Your task to perform on an android device: Go to Google maps Image 0: 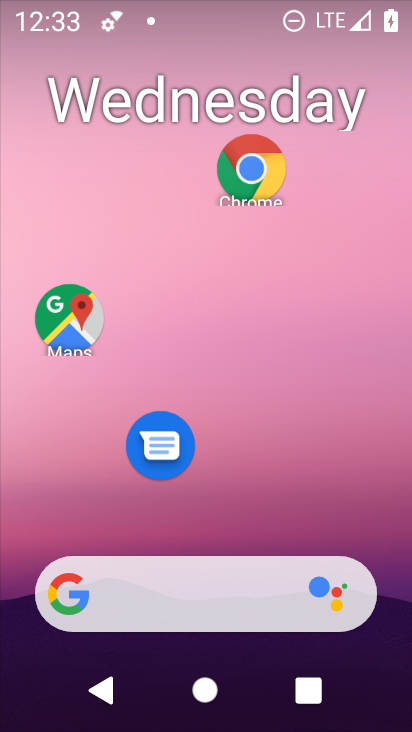
Step 0: drag from (199, 503) to (305, 214)
Your task to perform on an android device: Go to Google maps Image 1: 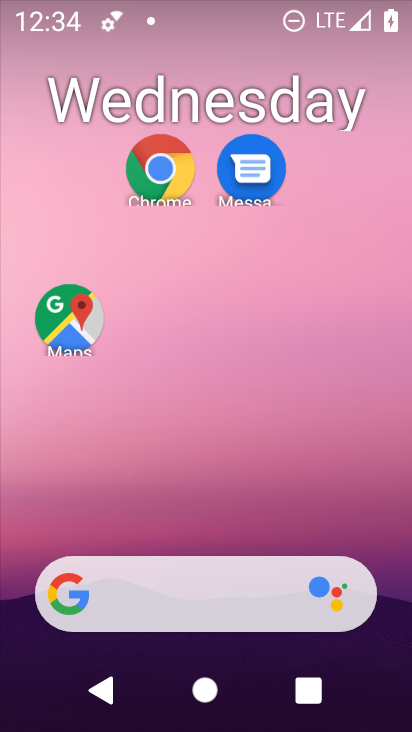
Step 1: click (64, 306)
Your task to perform on an android device: Go to Google maps Image 2: 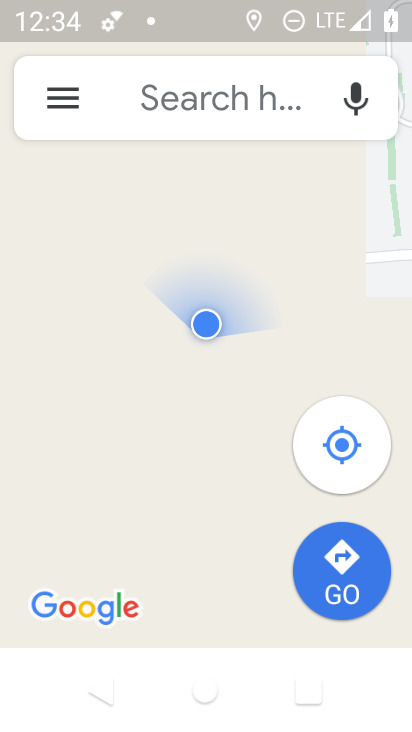
Step 2: task complete